Your task to perform on an android device: toggle translation in the chrome app Image 0: 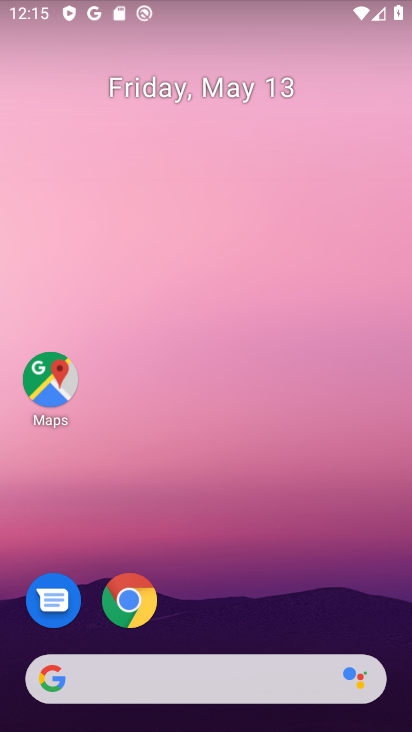
Step 0: click (296, 69)
Your task to perform on an android device: toggle translation in the chrome app Image 1: 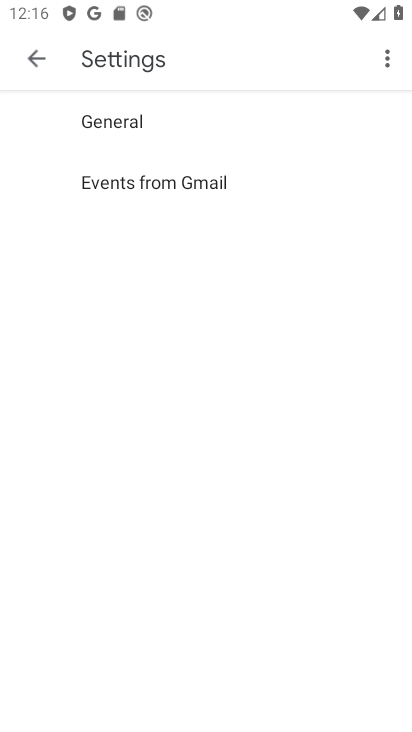
Step 1: press home button
Your task to perform on an android device: toggle translation in the chrome app Image 2: 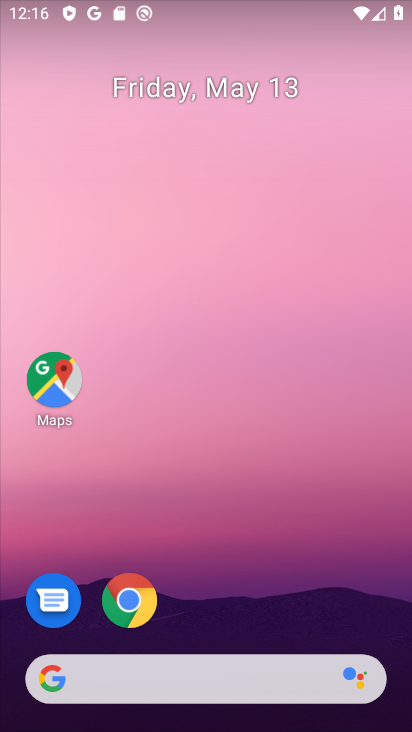
Step 2: drag from (186, 624) to (245, 319)
Your task to perform on an android device: toggle translation in the chrome app Image 3: 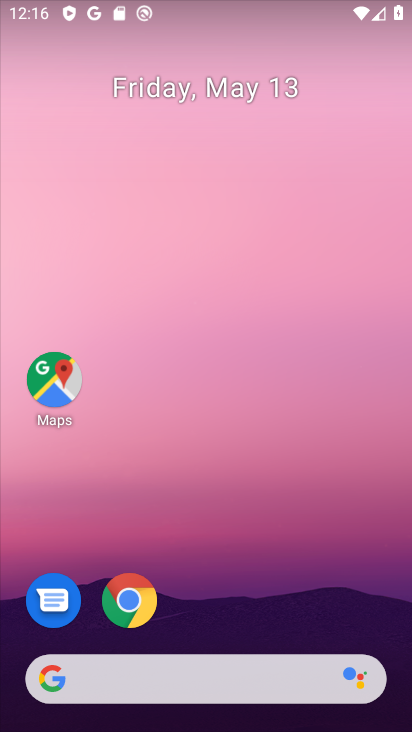
Step 3: drag from (231, 618) to (288, 45)
Your task to perform on an android device: toggle translation in the chrome app Image 4: 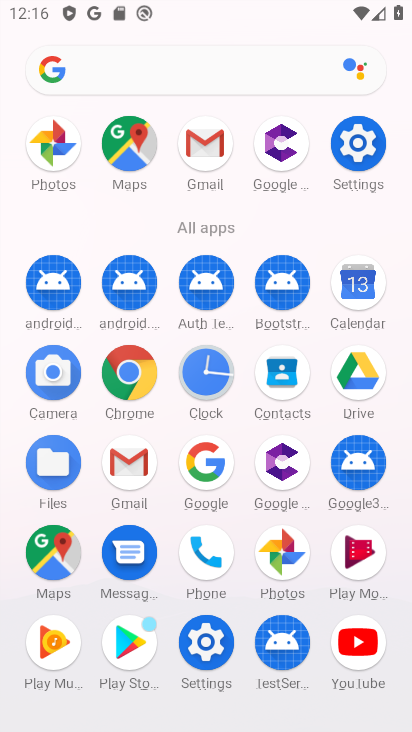
Step 4: click (131, 376)
Your task to perform on an android device: toggle translation in the chrome app Image 5: 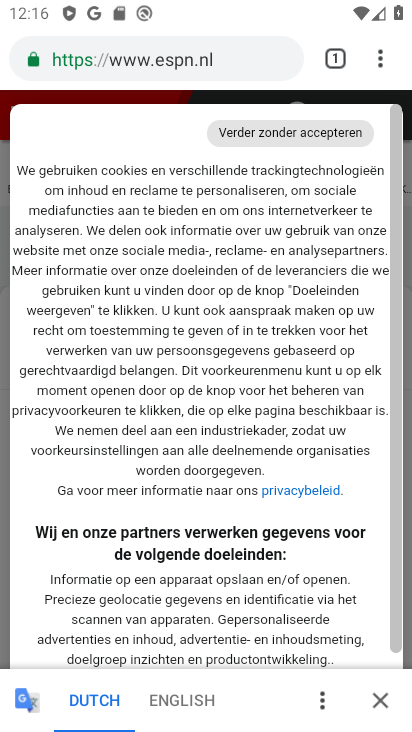
Step 5: drag from (374, 62) to (216, 622)
Your task to perform on an android device: toggle translation in the chrome app Image 6: 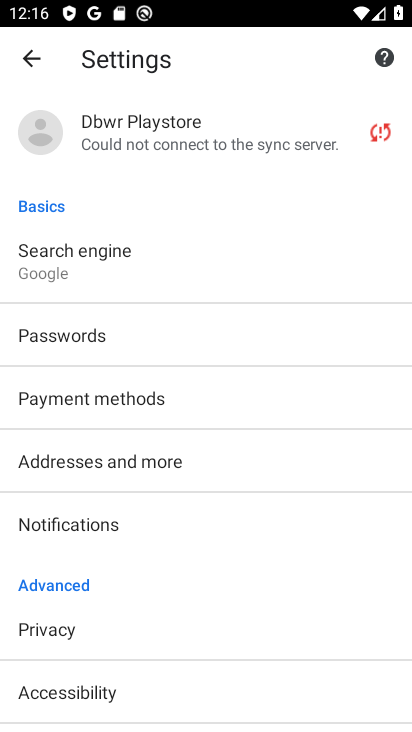
Step 6: drag from (121, 509) to (226, 55)
Your task to perform on an android device: toggle translation in the chrome app Image 7: 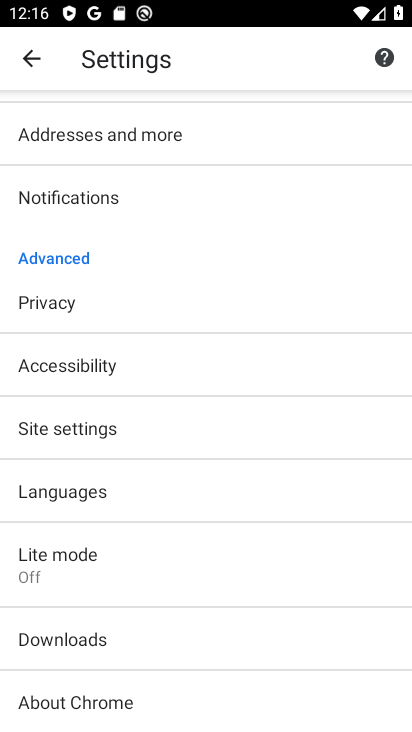
Step 7: drag from (183, 566) to (153, 242)
Your task to perform on an android device: toggle translation in the chrome app Image 8: 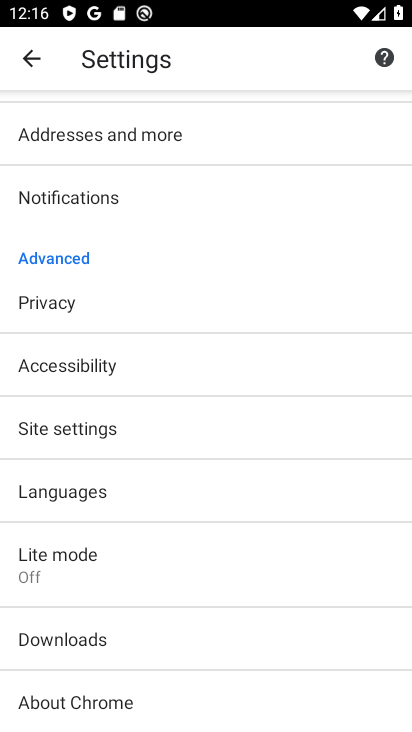
Step 8: click (133, 500)
Your task to perform on an android device: toggle translation in the chrome app Image 9: 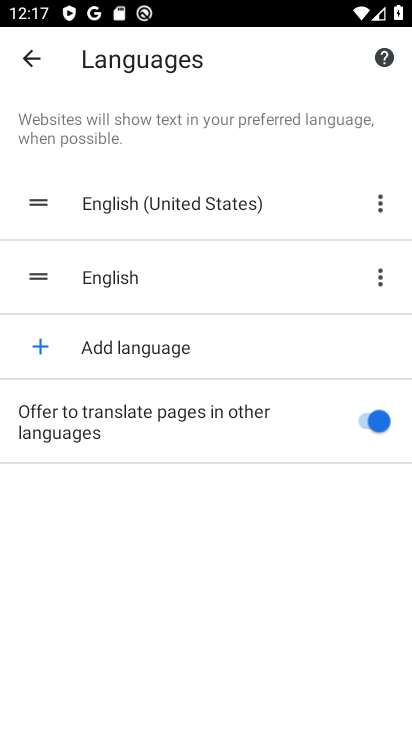
Step 9: click (346, 422)
Your task to perform on an android device: toggle translation in the chrome app Image 10: 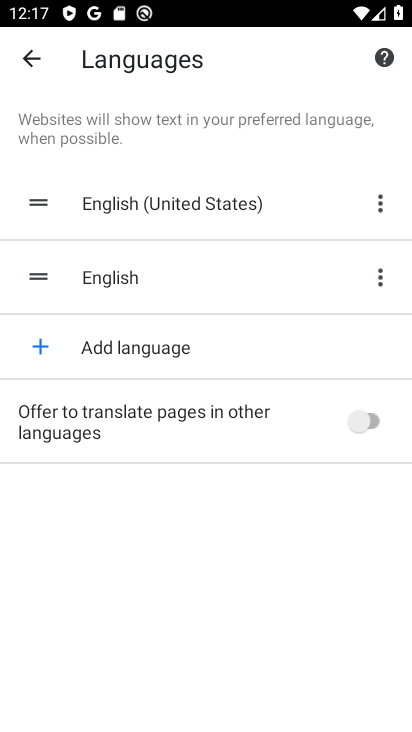
Step 10: task complete